Your task to perform on an android device: turn notification dots off Image 0: 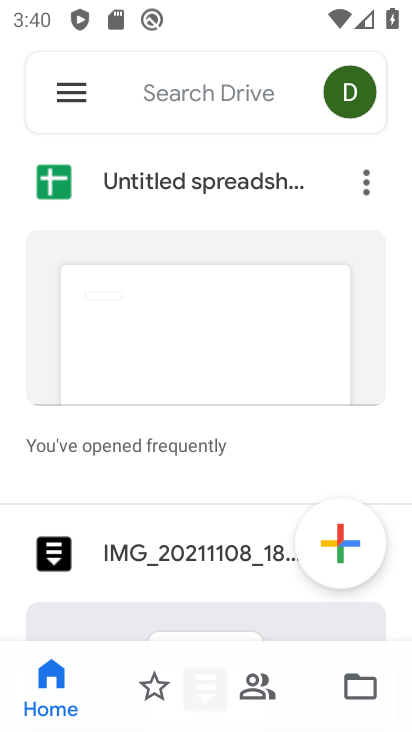
Step 0: press back button
Your task to perform on an android device: turn notification dots off Image 1: 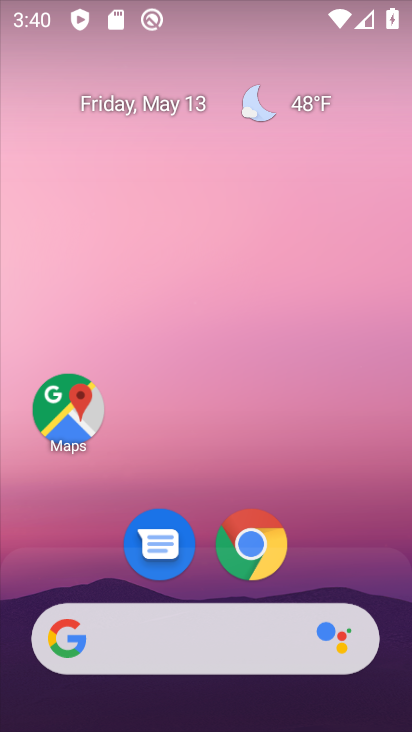
Step 1: drag from (159, 507) to (374, 89)
Your task to perform on an android device: turn notification dots off Image 2: 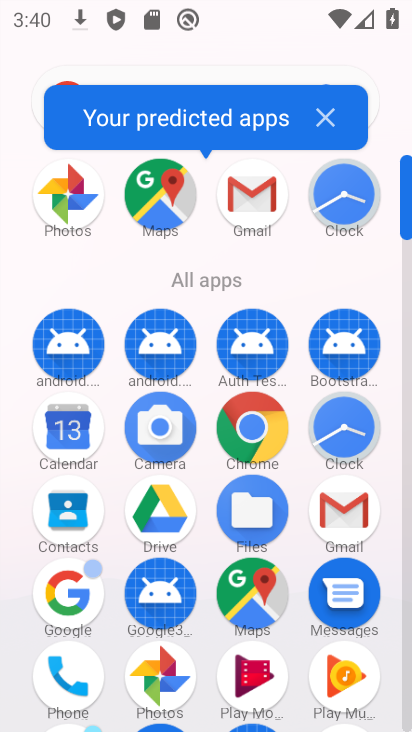
Step 2: drag from (271, 454) to (303, 410)
Your task to perform on an android device: turn notification dots off Image 3: 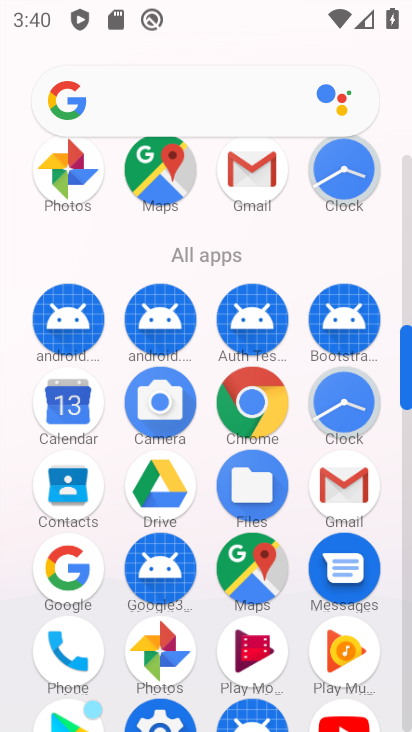
Step 3: click (167, 721)
Your task to perform on an android device: turn notification dots off Image 4: 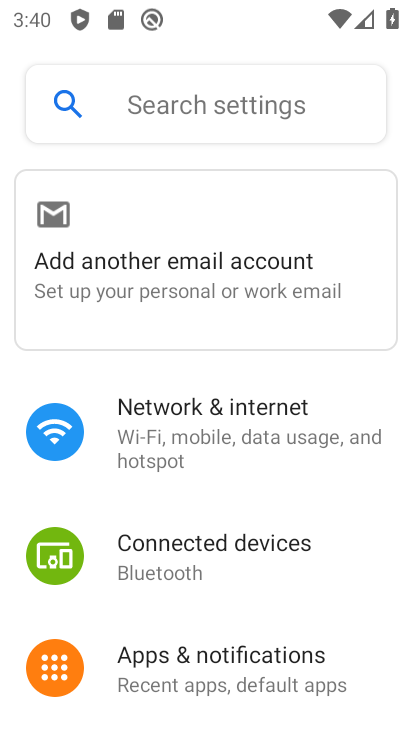
Step 4: drag from (226, 652) to (299, 376)
Your task to perform on an android device: turn notification dots off Image 5: 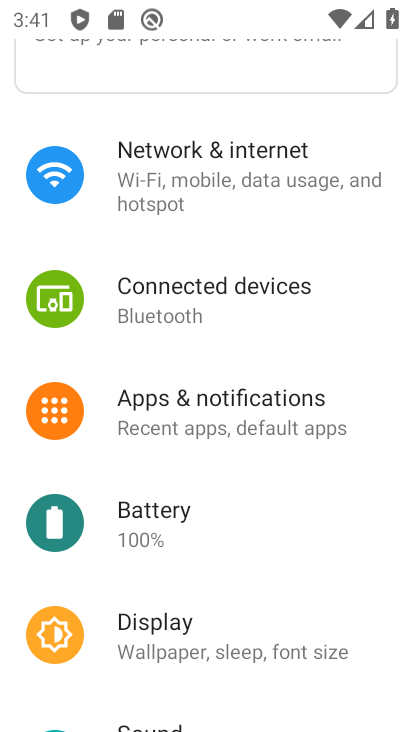
Step 5: click (250, 399)
Your task to perform on an android device: turn notification dots off Image 6: 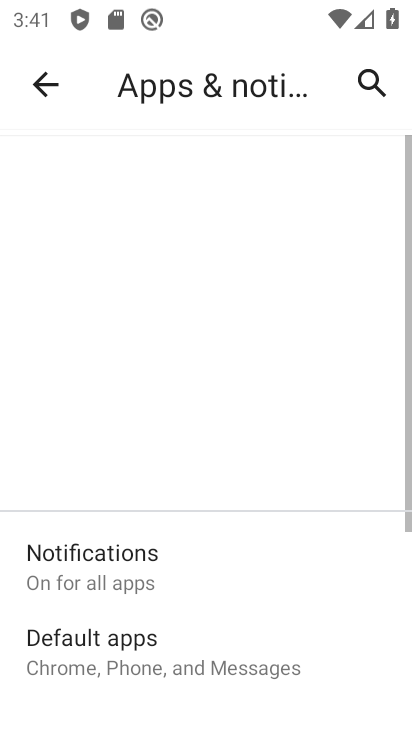
Step 6: drag from (265, 573) to (360, 281)
Your task to perform on an android device: turn notification dots off Image 7: 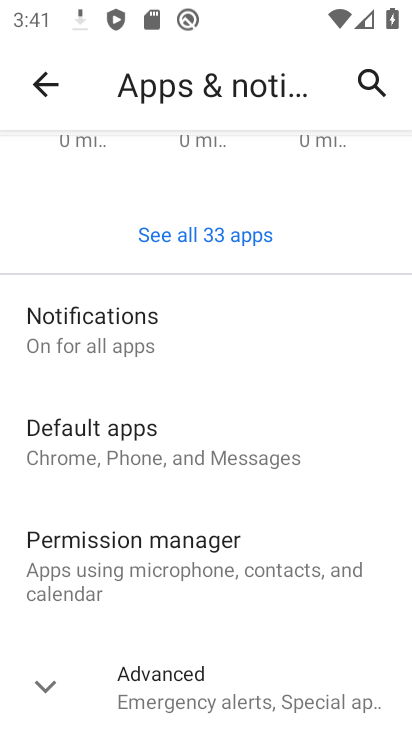
Step 7: click (244, 313)
Your task to perform on an android device: turn notification dots off Image 8: 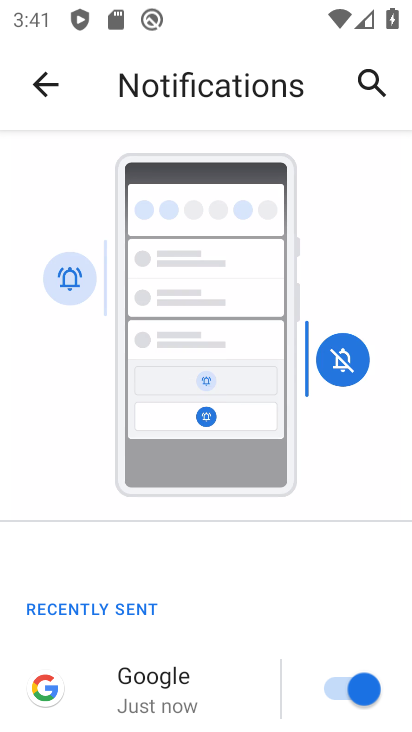
Step 8: drag from (199, 595) to (389, 163)
Your task to perform on an android device: turn notification dots off Image 9: 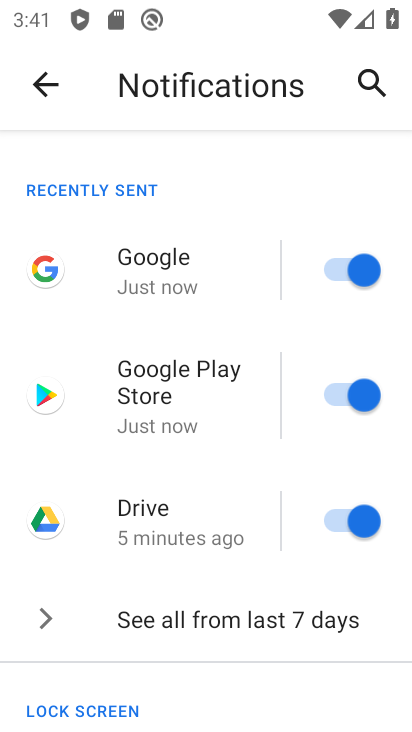
Step 9: drag from (165, 696) to (311, 236)
Your task to perform on an android device: turn notification dots off Image 10: 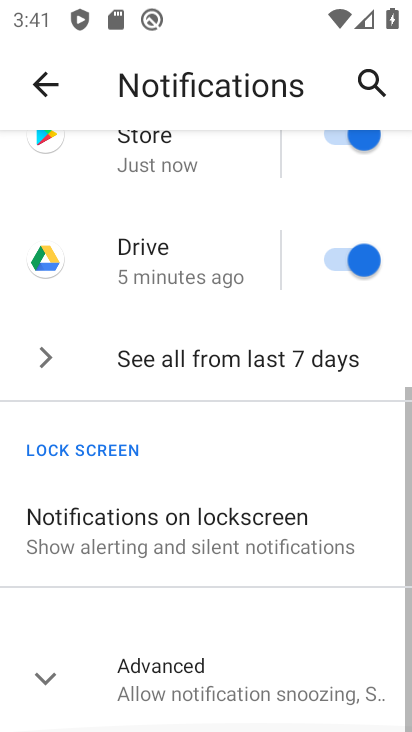
Step 10: click (198, 651)
Your task to perform on an android device: turn notification dots off Image 11: 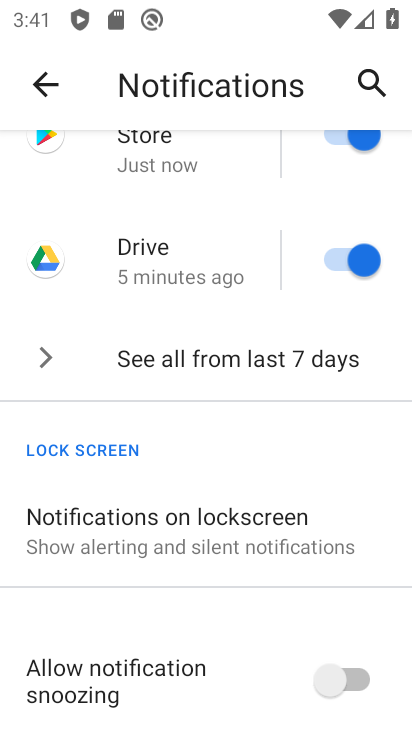
Step 11: drag from (161, 674) to (303, 337)
Your task to perform on an android device: turn notification dots off Image 12: 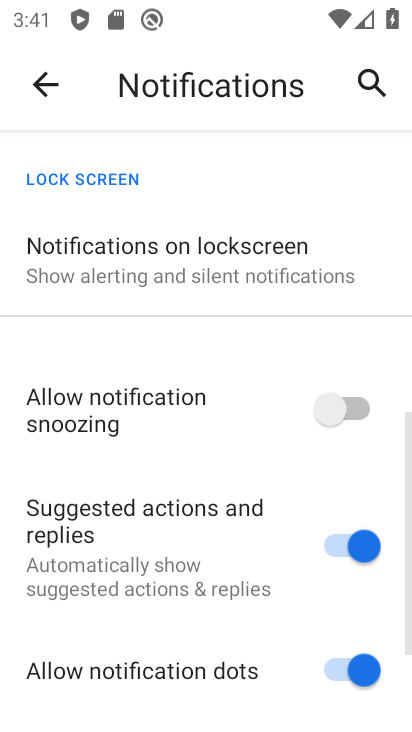
Step 12: drag from (171, 644) to (294, 262)
Your task to perform on an android device: turn notification dots off Image 13: 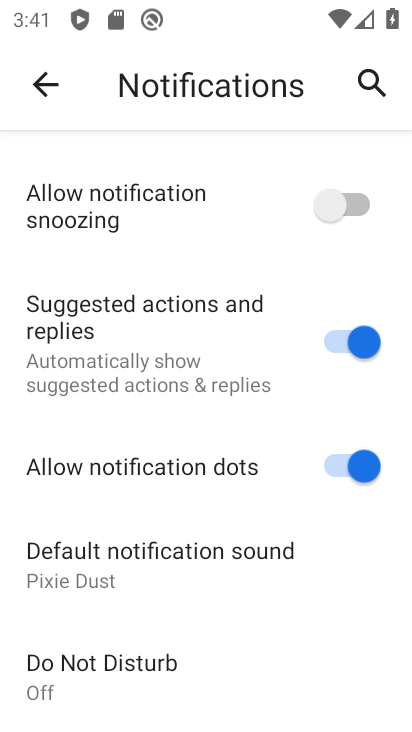
Step 13: click (326, 463)
Your task to perform on an android device: turn notification dots off Image 14: 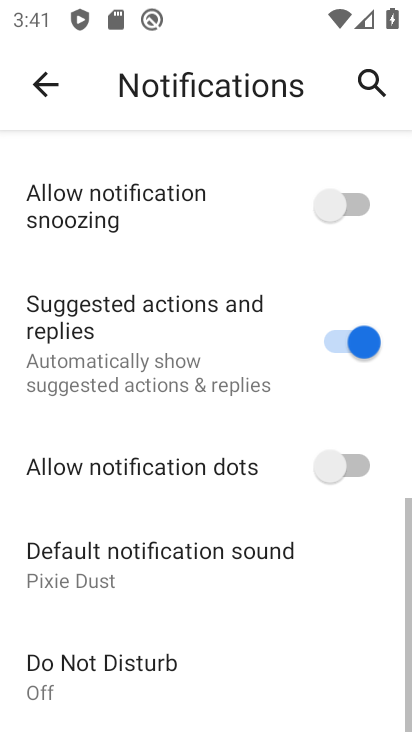
Step 14: task complete